Your task to perform on an android device: Open calendar and show me the fourth week of next month Image 0: 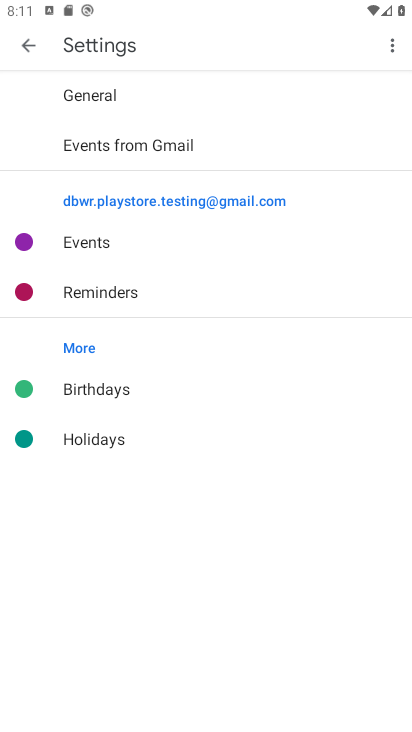
Step 0: press home button
Your task to perform on an android device: Open calendar and show me the fourth week of next month Image 1: 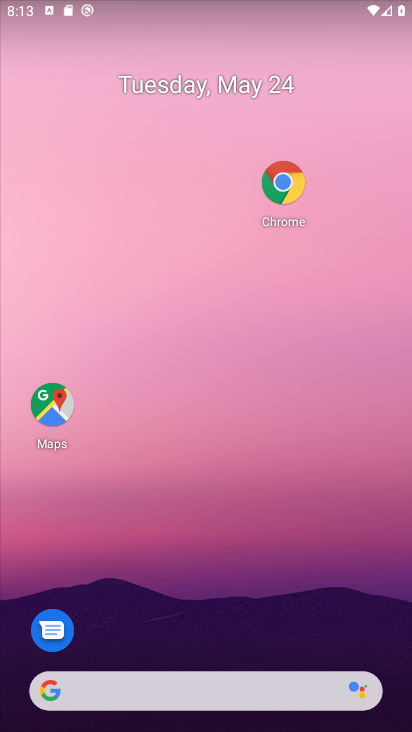
Step 1: drag from (265, 709) to (240, 118)
Your task to perform on an android device: Open calendar and show me the fourth week of next month Image 2: 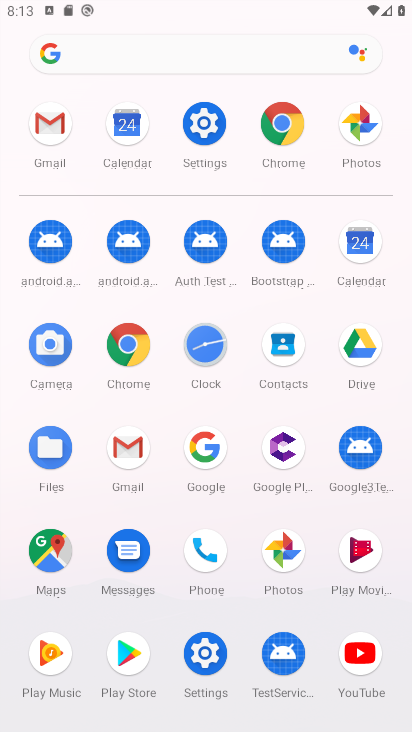
Step 2: click (352, 252)
Your task to perform on an android device: Open calendar and show me the fourth week of next month Image 3: 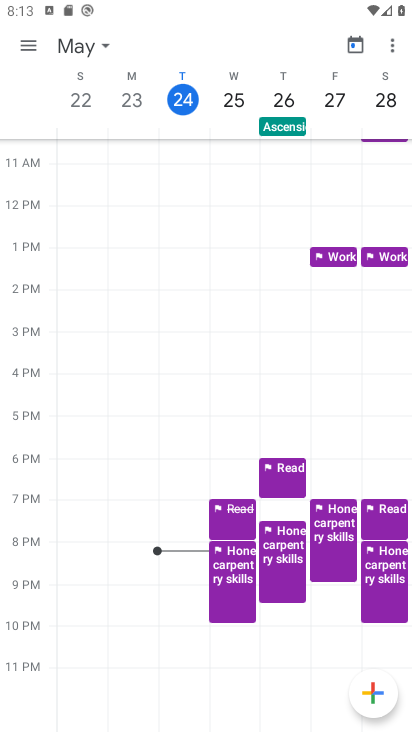
Step 3: task complete